Your task to perform on an android device: toggle wifi Image 0: 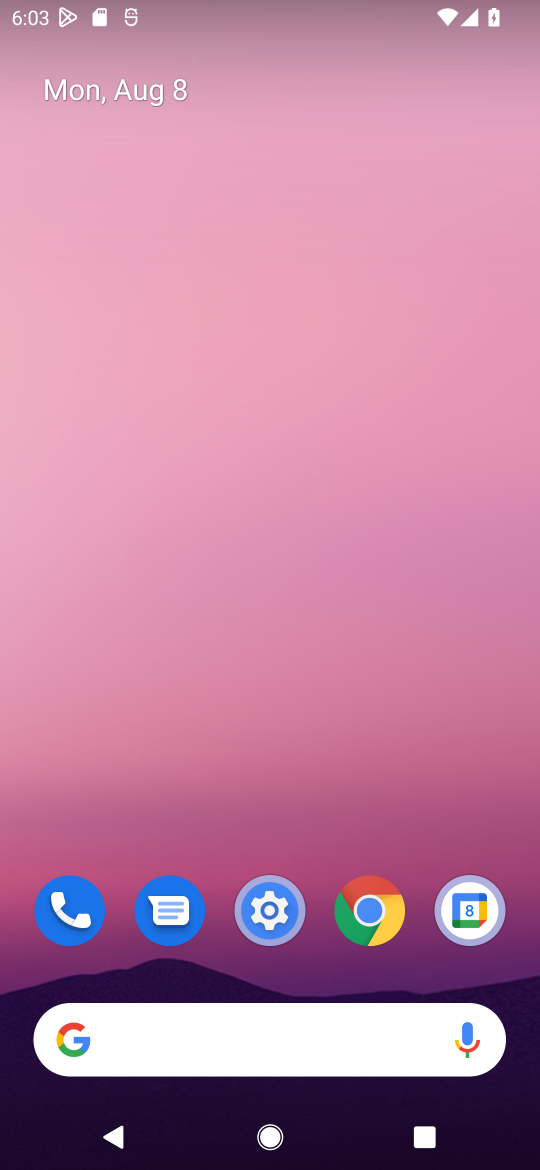
Step 0: drag from (343, 10) to (125, 1153)
Your task to perform on an android device: toggle wifi Image 1: 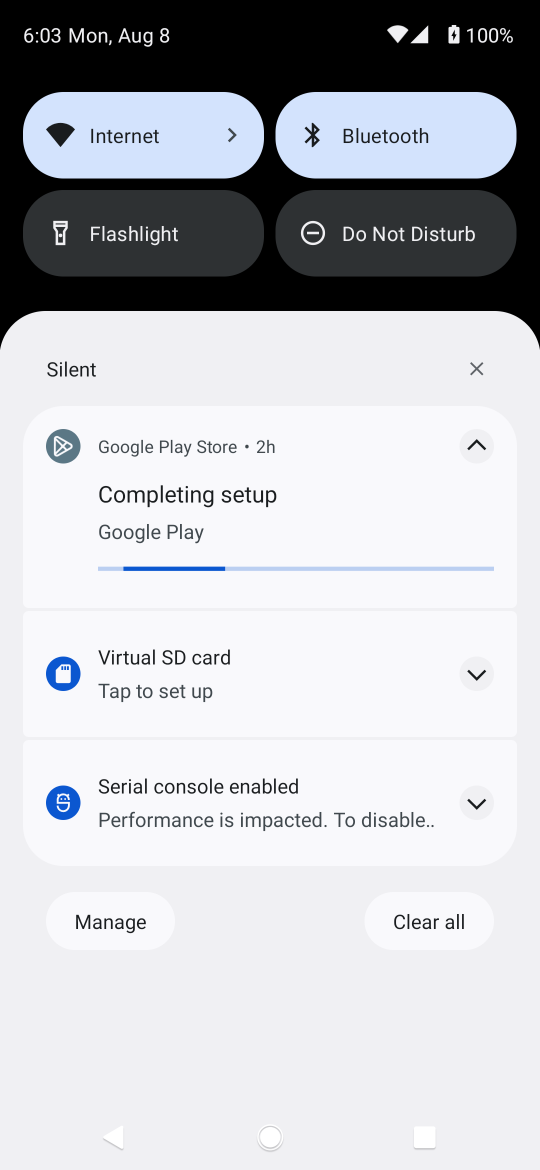
Step 1: click (229, 132)
Your task to perform on an android device: toggle wifi Image 2: 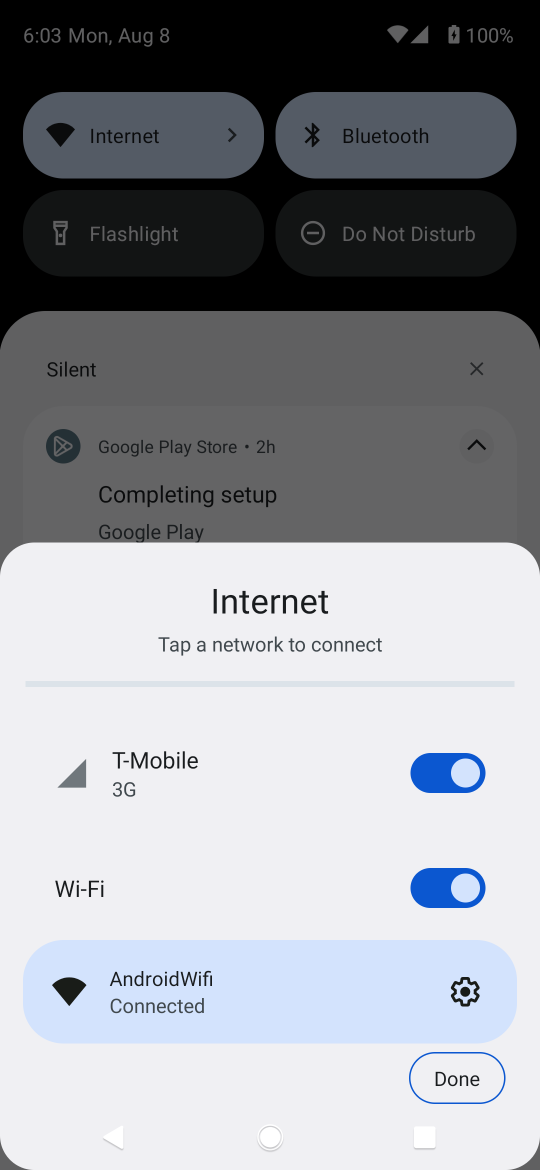
Step 2: click (167, 1008)
Your task to perform on an android device: toggle wifi Image 3: 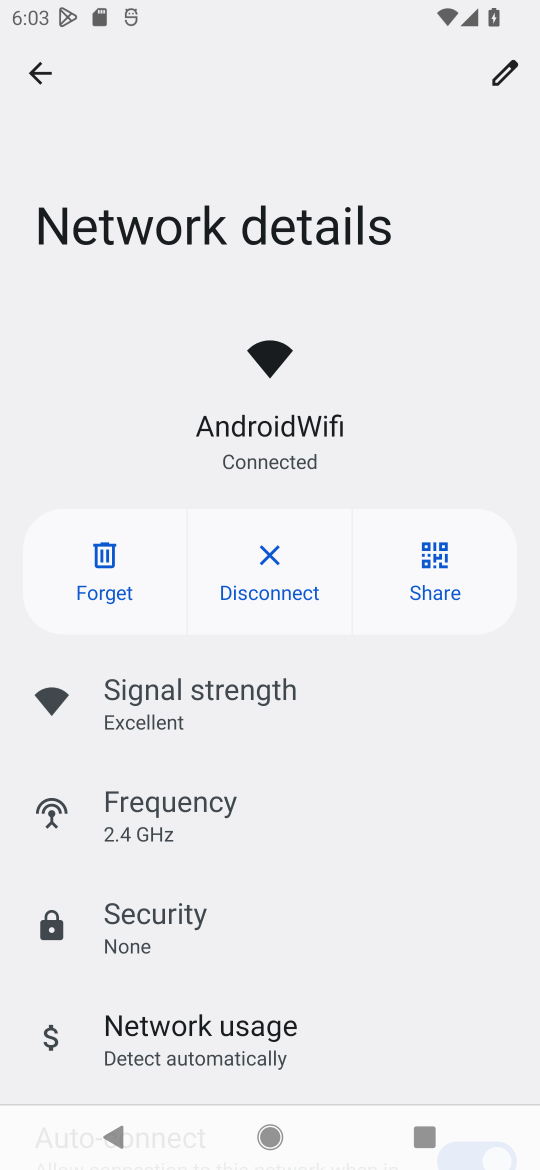
Step 3: click (103, 77)
Your task to perform on an android device: toggle wifi Image 4: 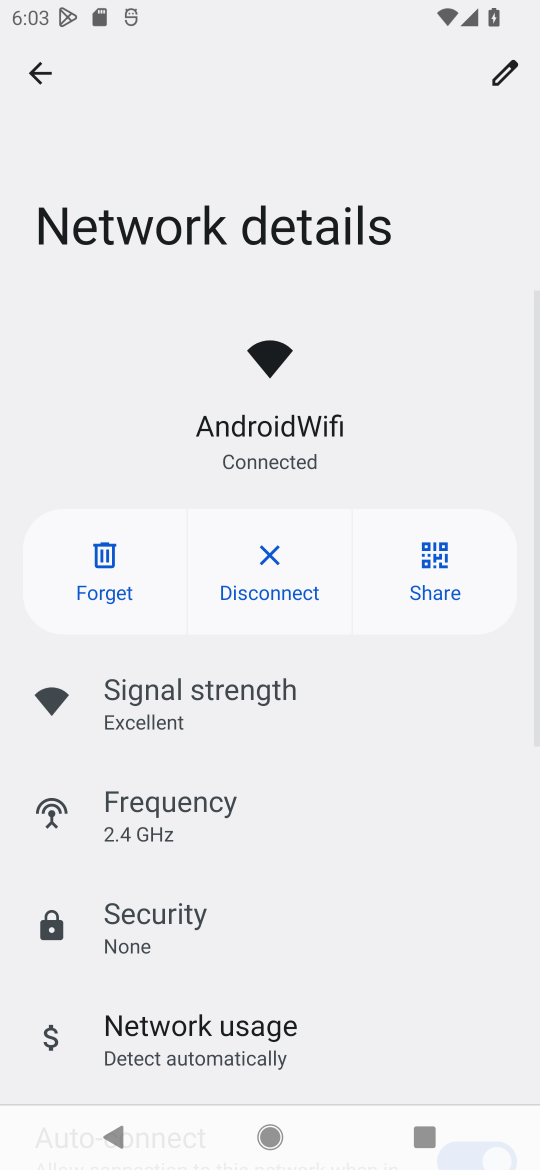
Step 4: click (21, 69)
Your task to perform on an android device: toggle wifi Image 5: 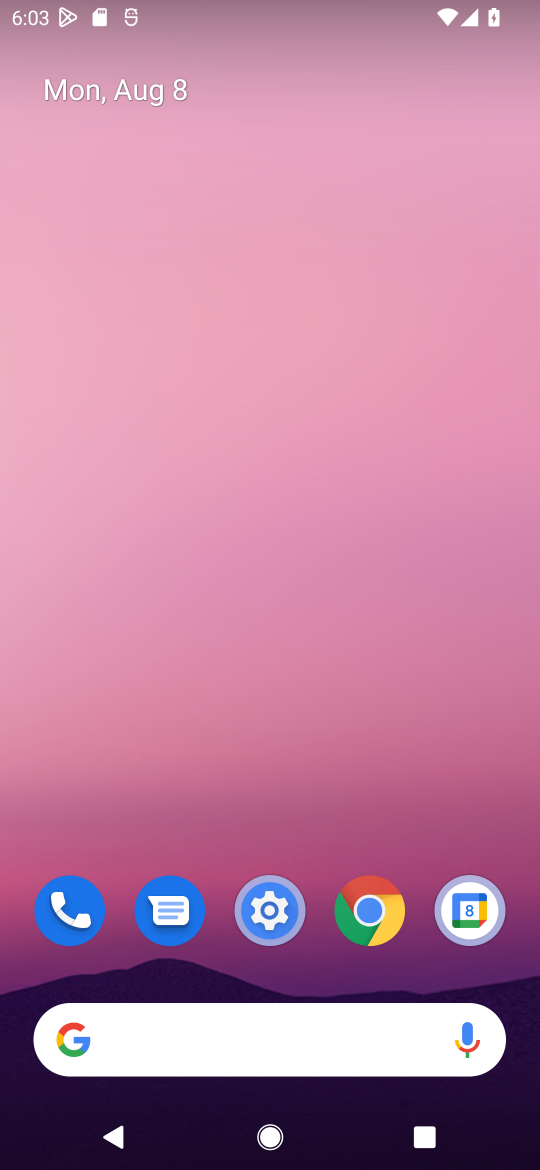
Step 5: drag from (263, 7) to (172, 1106)
Your task to perform on an android device: toggle wifi Image 6: 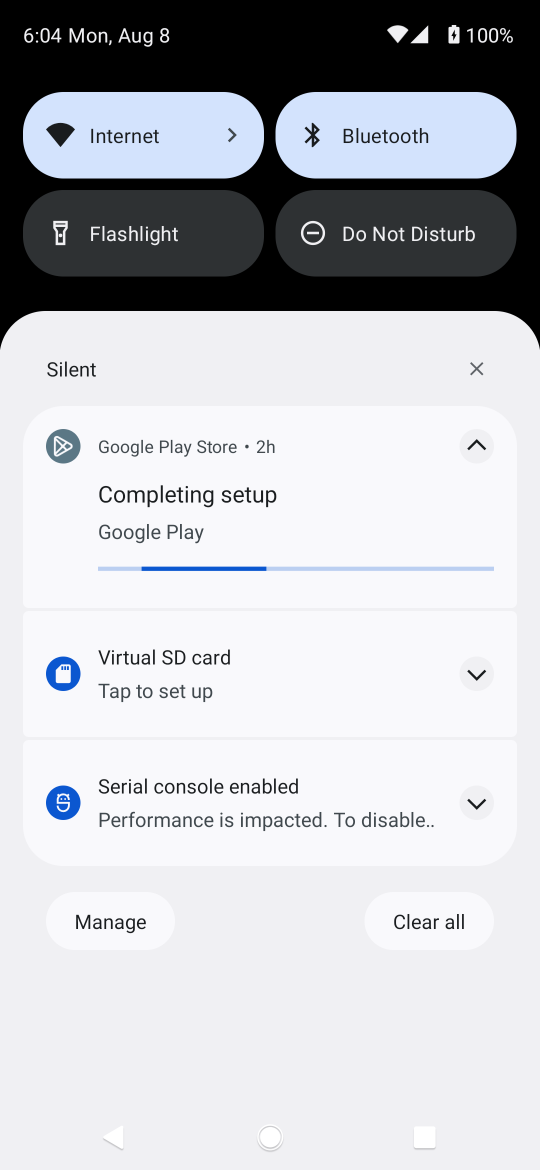
Step 6: click (187, 140)
Your task to perform on an android device: toggle wifi Image 7: 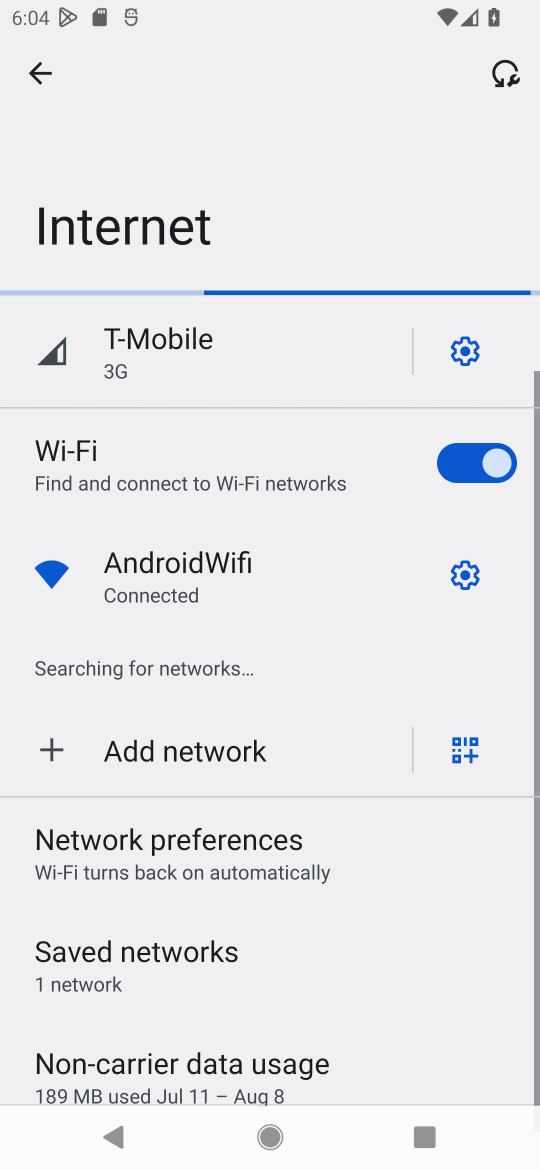
Step 7: click (470, 461)
Your task to perform on an android device: toggle wifi Image 8: 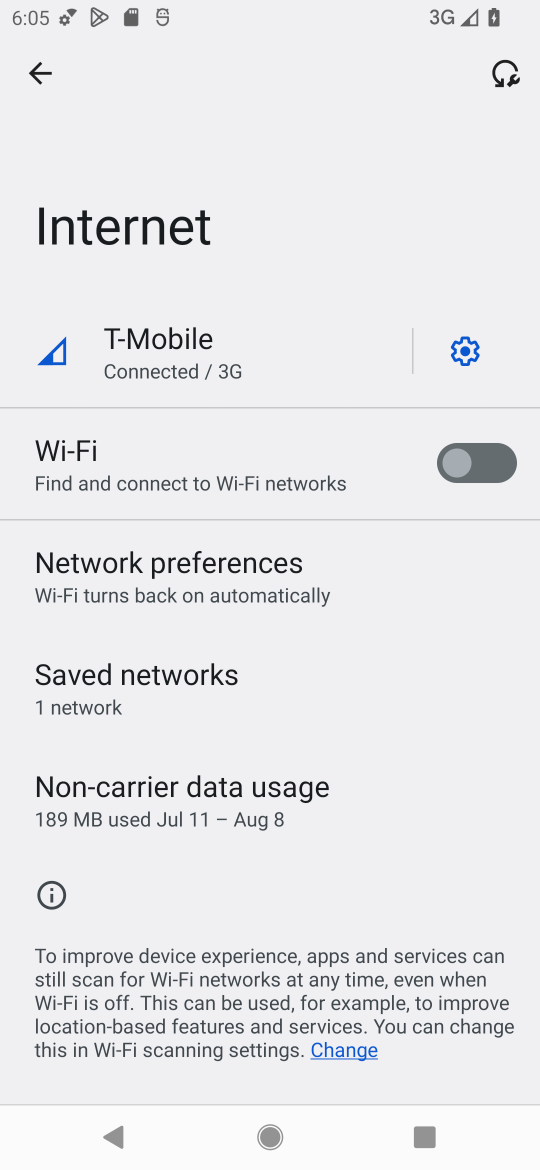
Step 8: task complete